Your task to perform on an android device: Open Youtube and go to "Your channel" Image 0: 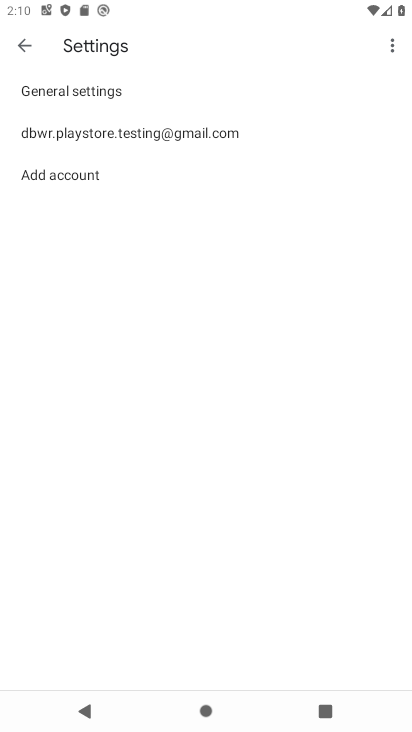
Step 0: press back button
Your task to perform on an android device: Open Youtube and go to "Your channel" Image 1: 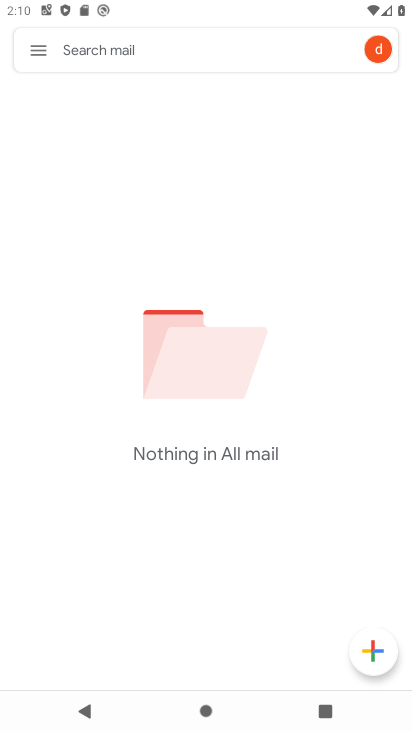
Step 1: press back button
Your task to perform on an android device: Open Youtube and go to "Your channel" Image 2: 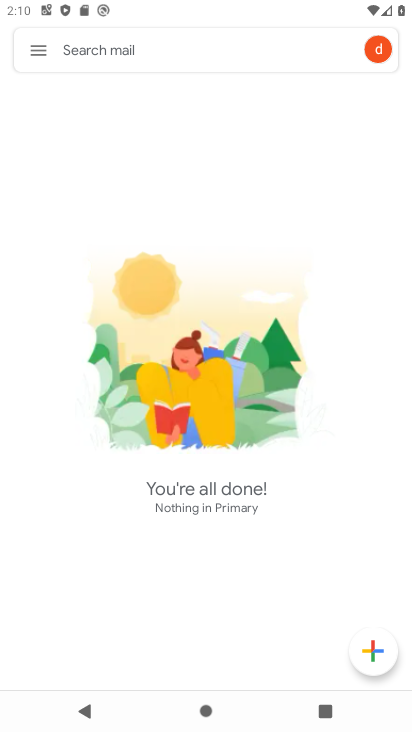
Step 2: press back button
Your task to perform on an android device: Open Youtube and go to "Your channel" Image 3: 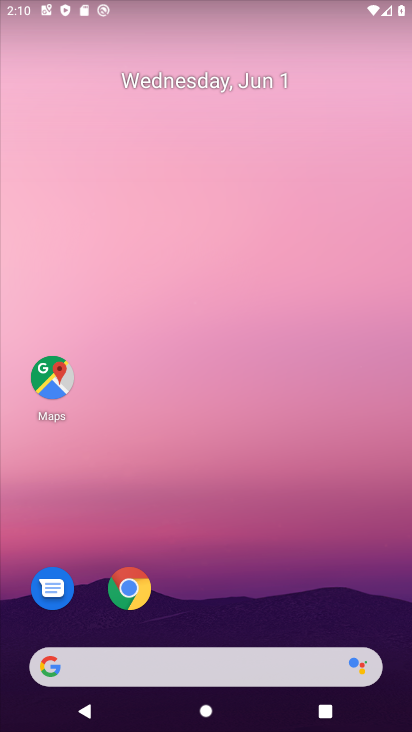
Step 3: drag from (224, 621) to (281, 64)
Your task to perform on an android device: Open Youtube and go to "Your channel" Image 4: 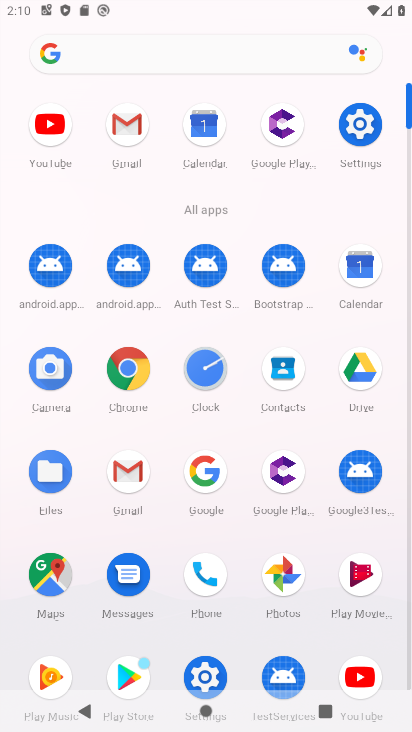
Step 4: click (56, 119)
Your task to perform on an android device: Open Youtube and go to "Your channel" Image 5: 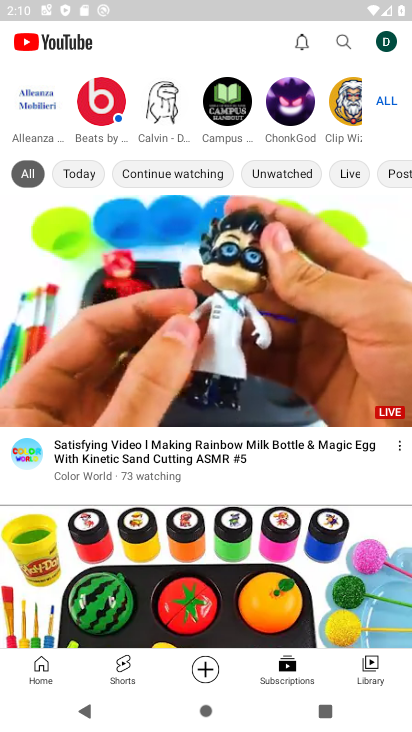
Step 5: click (388, 37)
Your task to perform on an android device: Open Youtube and go to "Your channel" Image 6: 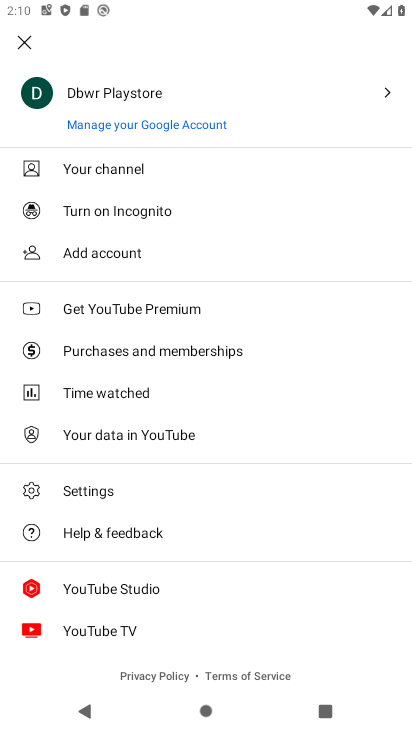
Step 6: click (94, 174)
Your task to perform on an android device: Open Youtube and go to "Your channel" Image 7: 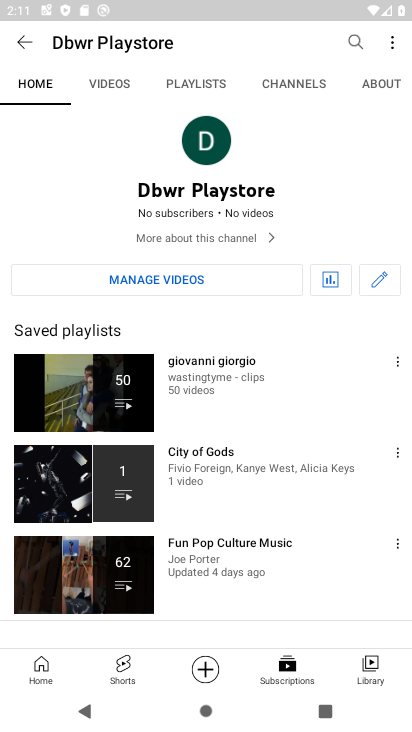
Step 7: task complete